Your task to perform on an android device: install app "McDonald's" Image 0: 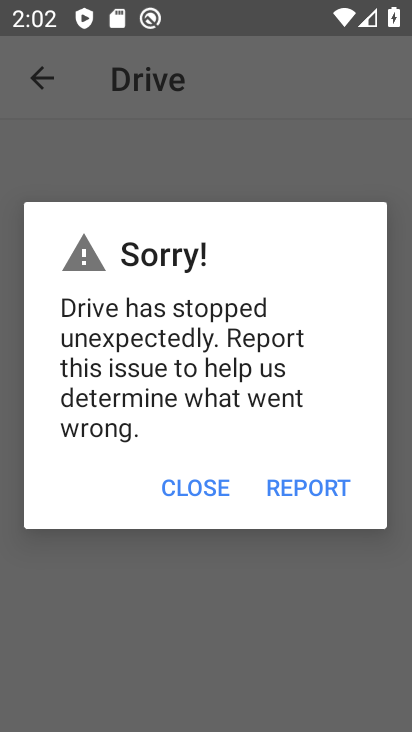
Step 0: press back button
Your task to perform on an android device: install app "McDonald's" Image 1: 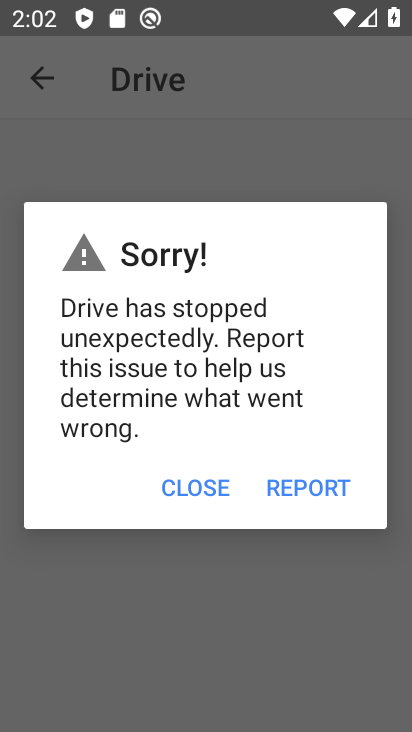
Step 1: press back button
Your task to perform on an android device: install app "McDonald's" Image 2: 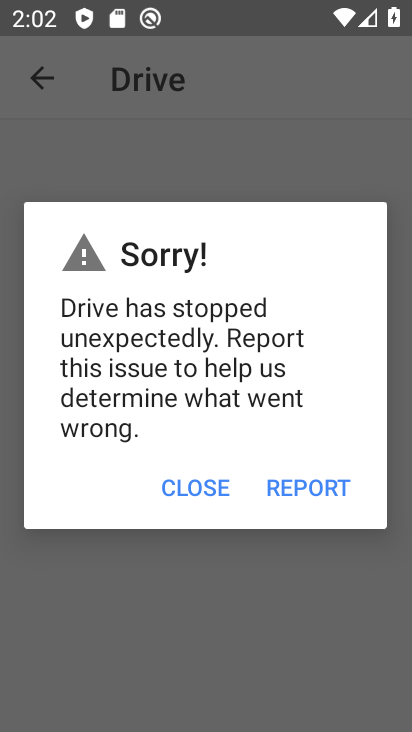
Step 2: press home button
Your task to perform on an android device: install app "McDonald's" Image 3: 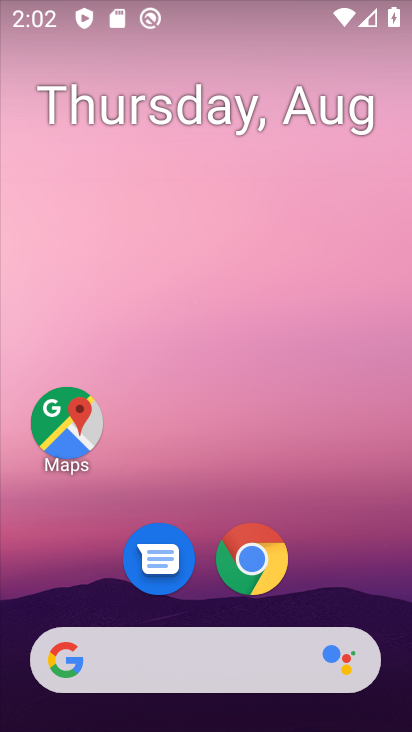
Step 3: drag from (146, 462) to (237, 25)
Your task to perform on an android device: install app "McDonald's" Image 4: 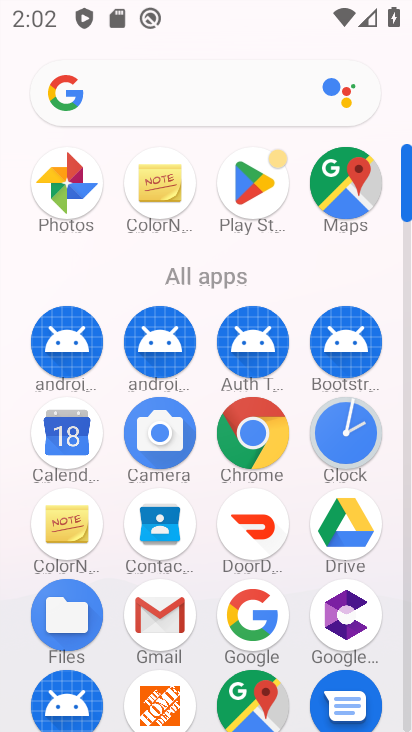
Step 4: click (246, 193)
Your task to perform on an android device: install app "McDonald's" Image 5: 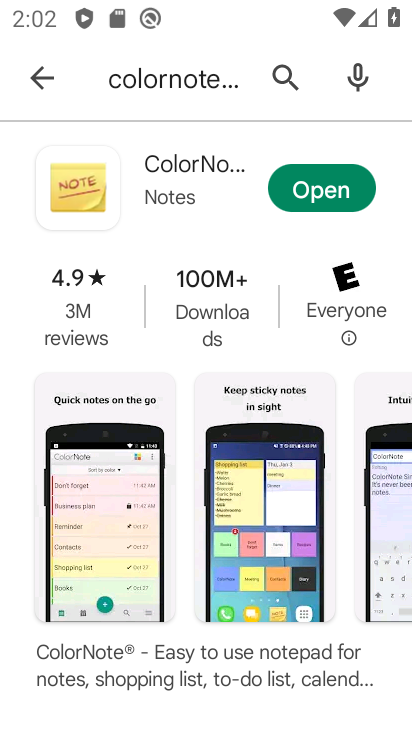
Step 5: click (285, 73)
Your task to perform on an android device: install app "McDonald's" Image 6: 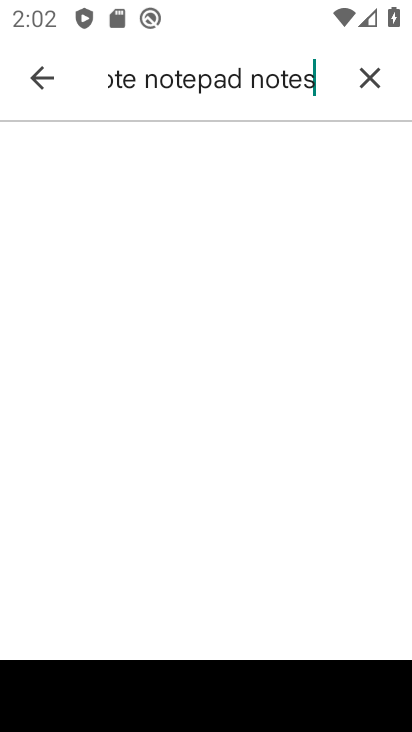
Step 6: click (378, 72)
Your task to perform on an android device: install app "McDonald's" Image 7: 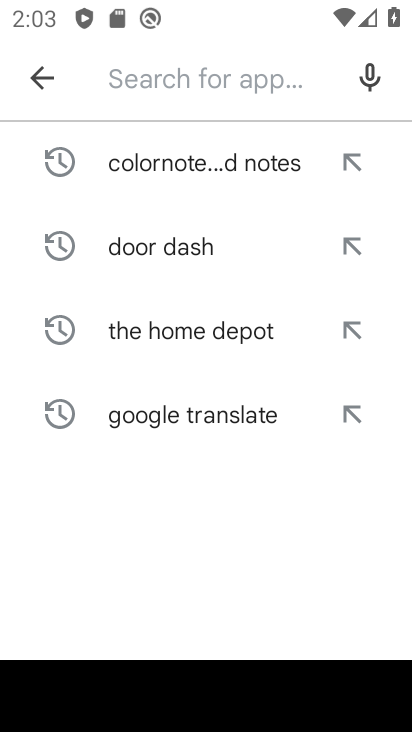
Step 7: click (164, 70)
Your task to perform on an android device: install app "McDonald's" Image 8: 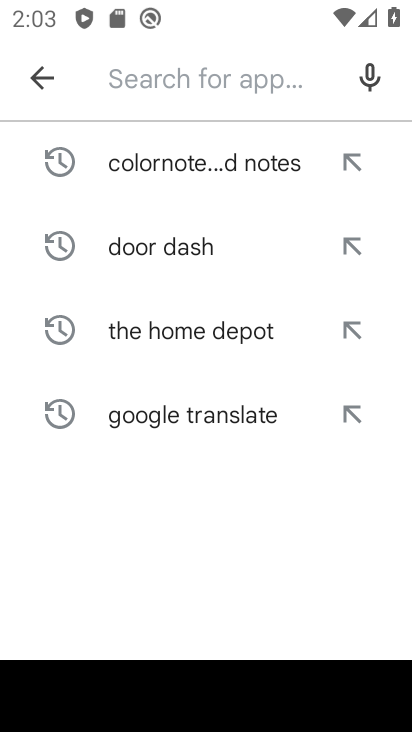
Step 8: type "McDonald's"
Your task to perform on an android device: install app "McDonald's" Image 9: 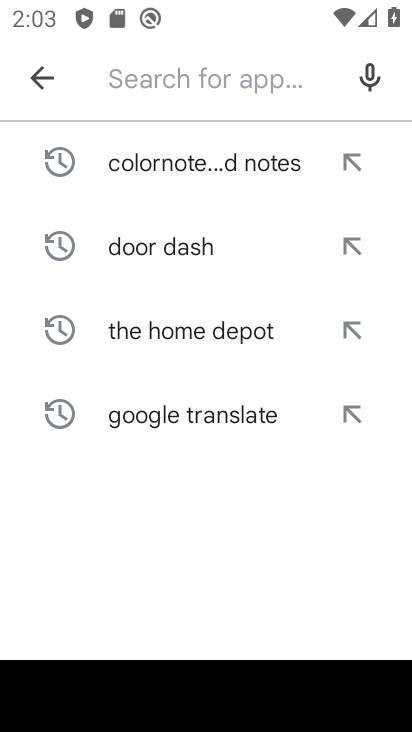
Step 9: click (182, 503)
Your task to perform on an android device: install app "McDonald's" Image 10: 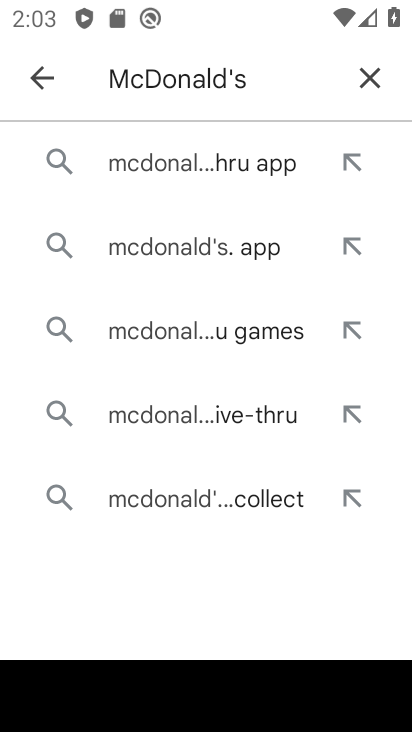
Step 10: click (178, 238)
Your task to perform on an android device: install app "McDonald's" Image 11: 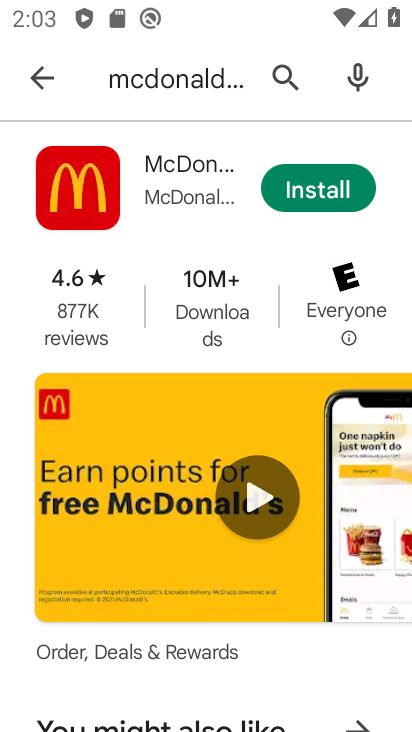
Step 11: click (337, 193)
Your task to perform on an android device: install app "McDonald's" Image 12: 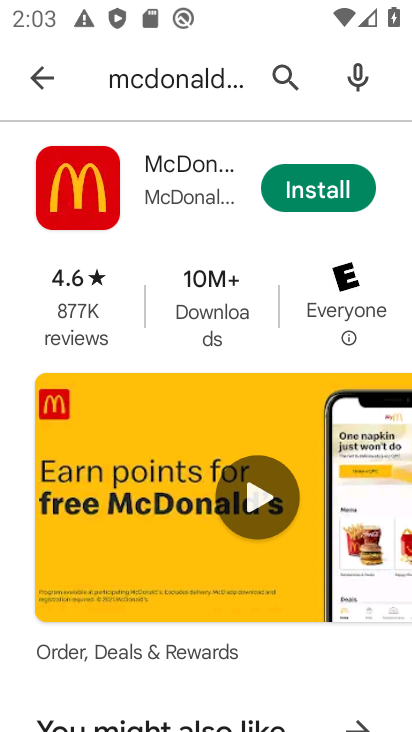
Step 12: click (305, 187)
Your task to perform on an android device: install app "McDonald's" Image 13: 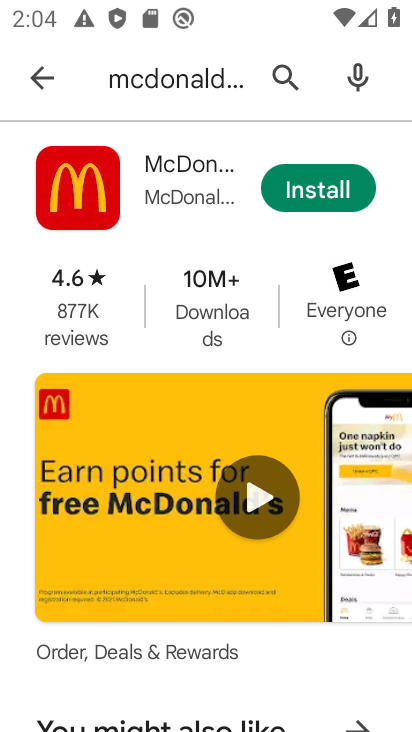
Step 13: click (339, 189)
Your task to perform on an android device: install app "McDonald's" Image 14: 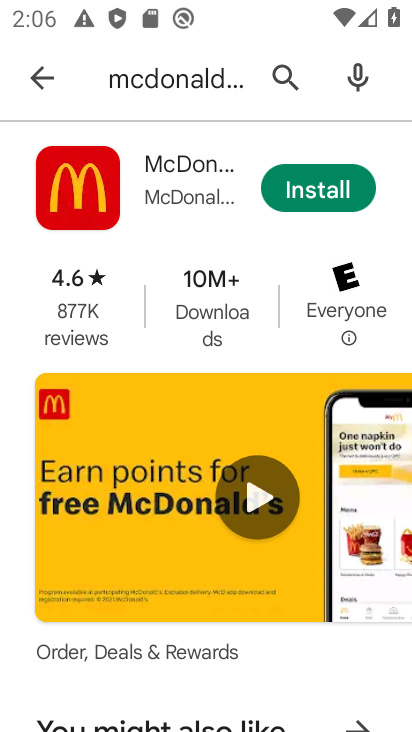
Step 14: click (255, 201)
Your task to perform on an android device: install app "McDonald's" Image 15: 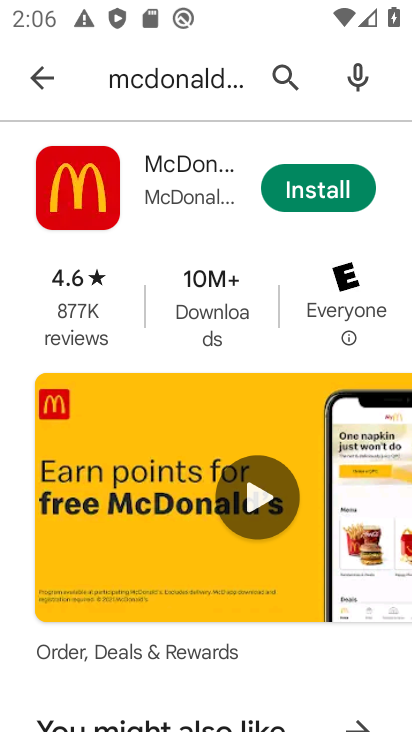
Step 15: click (289, 192)
Your task to perform on an android device: install app "McDonald's" Image 16: 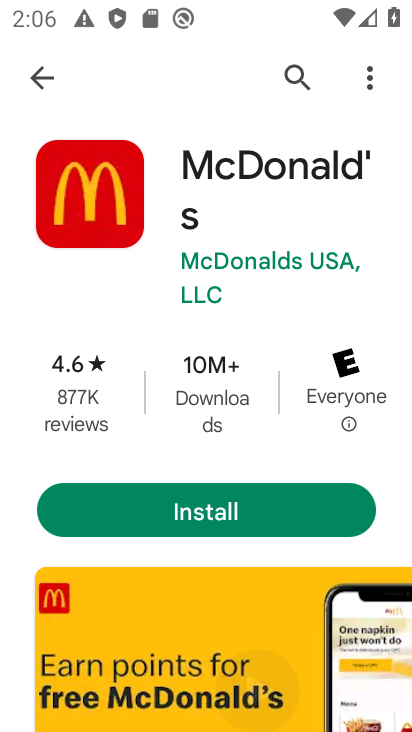
Step 16: click (188, 500)
Your task to perform on an android device: install app "McDonald's" Image 17: 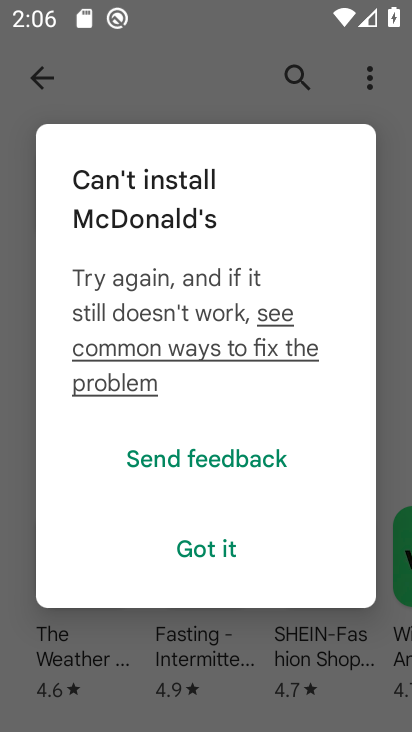
Step 17: click (189, 542)
Your task to perform on an android device: install app "McDonald's" Image 18: 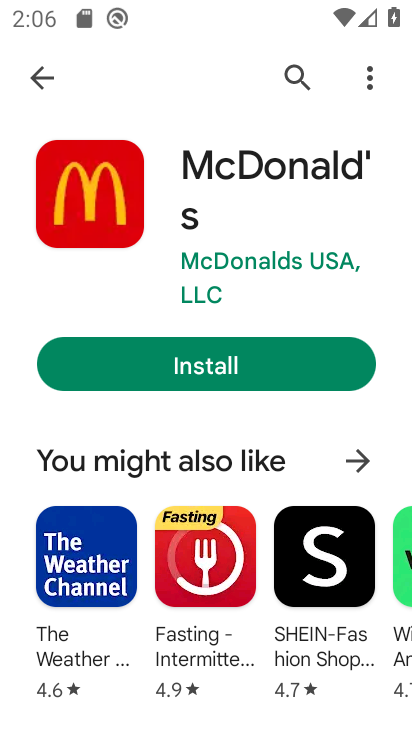
Step 18: task complete